Your task to perform on an android device: Empty the shopping cart on amazon. Add "bose soundsport free" to the cart on amazon, then select checkout. Image 0: 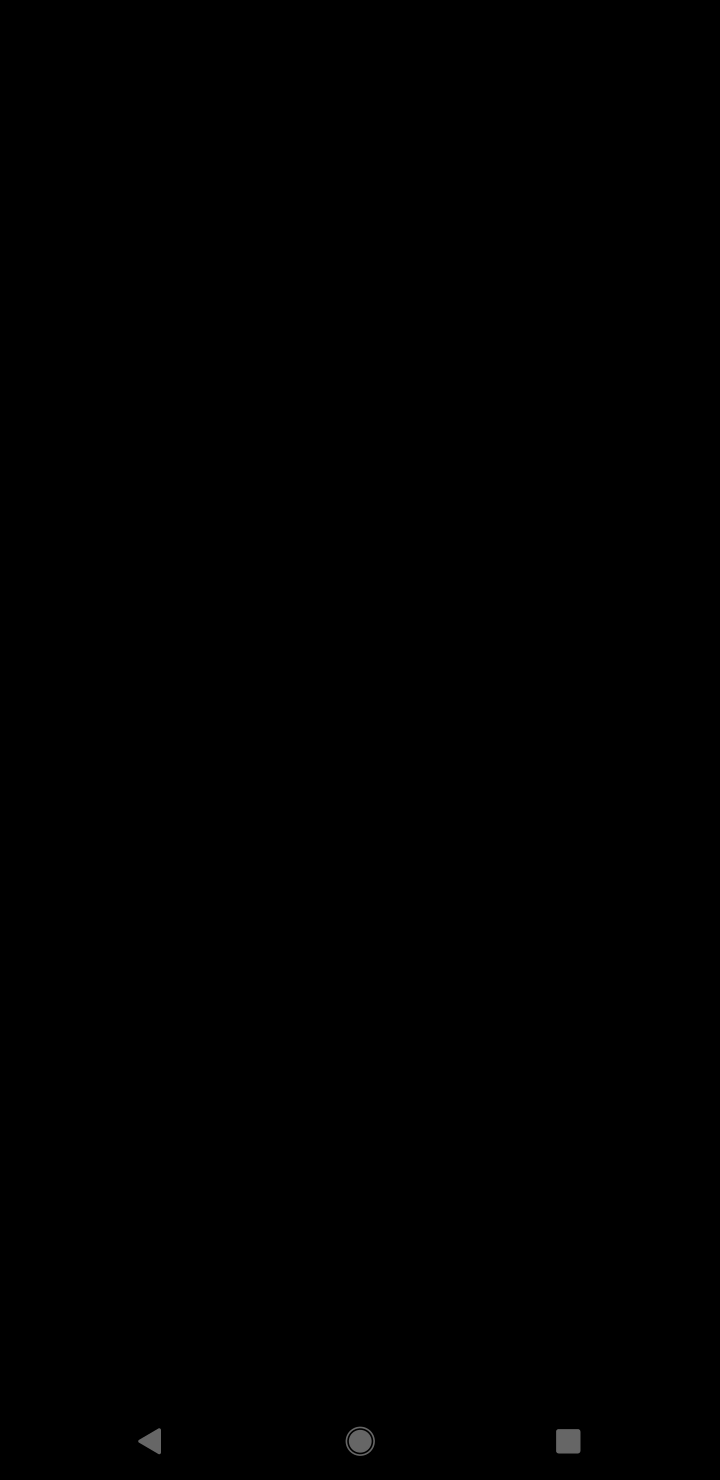
Step 0: task complete